Your task to perform on an android device: Open Chrome and go to settings Image 0: 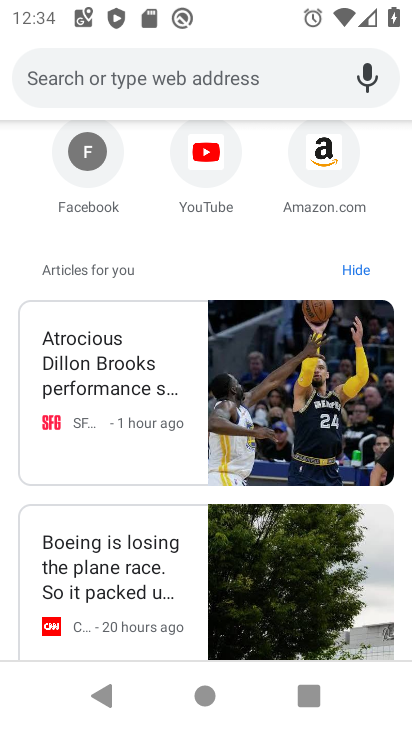
Step 0: drag from (273, 292) to (260, 592)
Your task to perform on an android device: Open Chrome and go to settings Image 1: 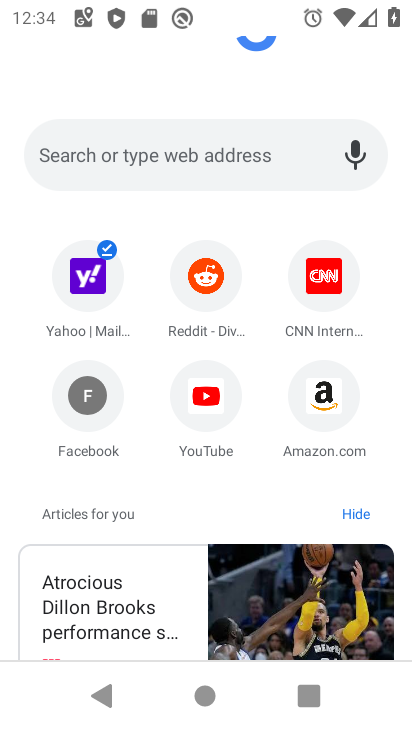
Step 1: drag from (382, 82) to (333, 457)
Your task to perform on an android device: Open Chrome and go to settings Image 2: 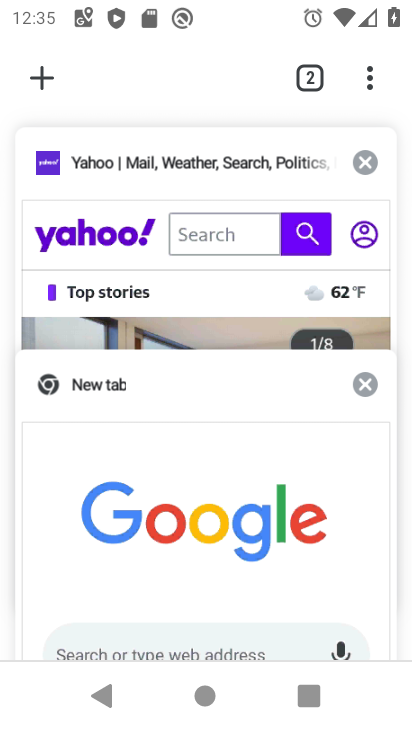
Step 2: click (367, 90)
Your task to perform on an android device: Open Chrome and go to settings Image 3: 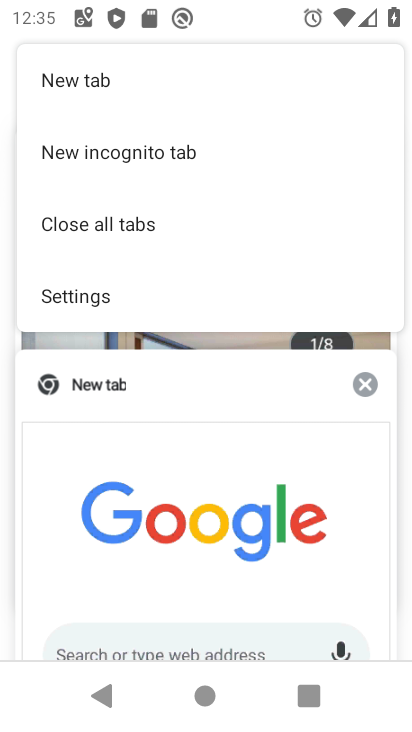
Step 3: click (197, 286)
Your task to perform on an android device: Open Chrome and go to settings Image 4: 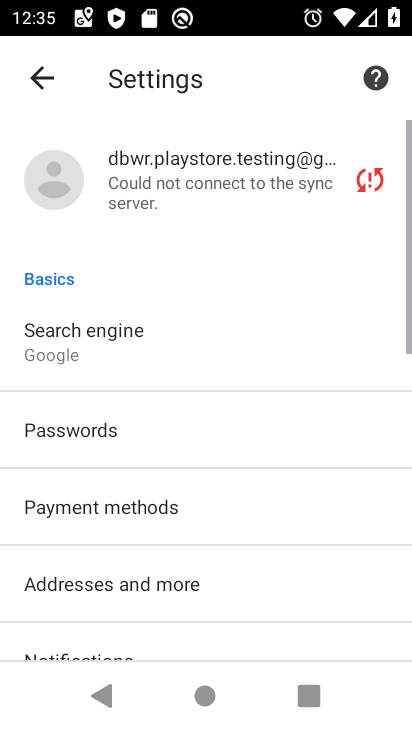
Step 4: task complete